Your task to perform on an android device: install app "LinkedIn" Image 0: 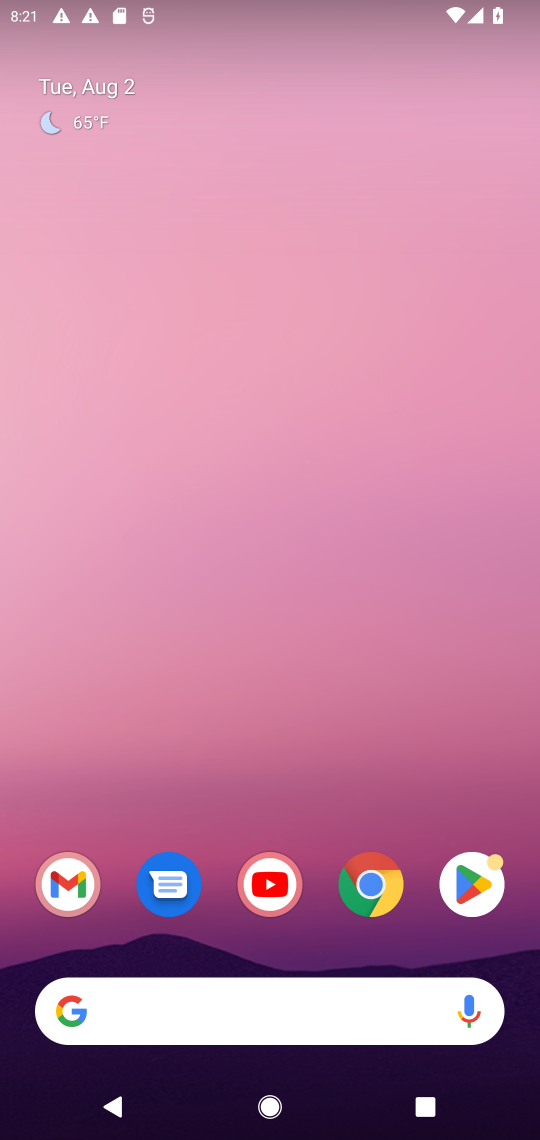
Step 0: press home button
Your task to perform on an android device: install app "LinkedIn" Image 1: 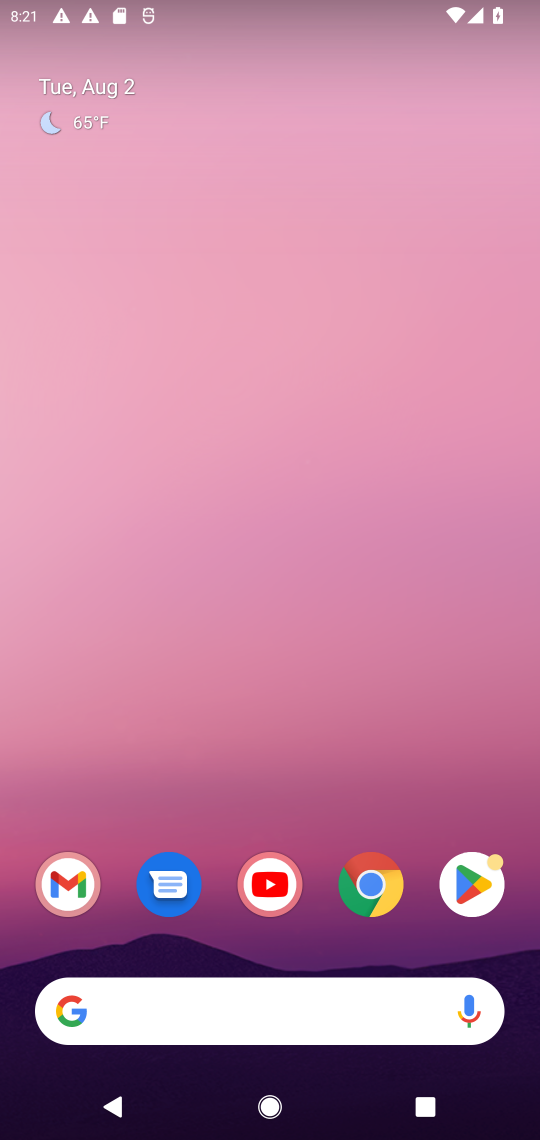
Step 1: click (477, 878)
Your task to perform on an android device: install app "LinkedIn" Image 2: 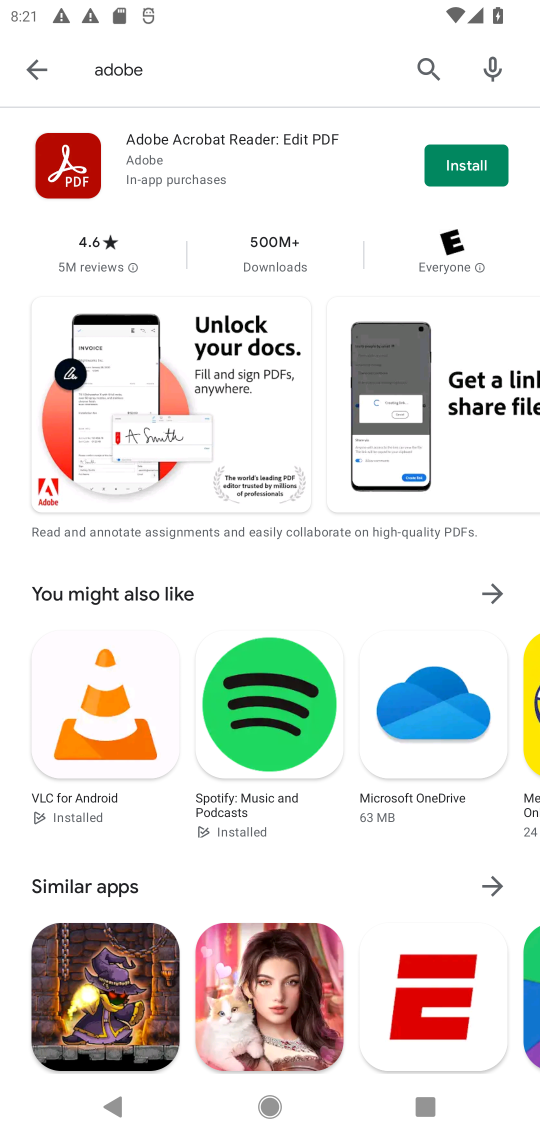
Step 2: click (424, 57)
Your task to perform on an android device: install app "LinkedIn" Image 3: 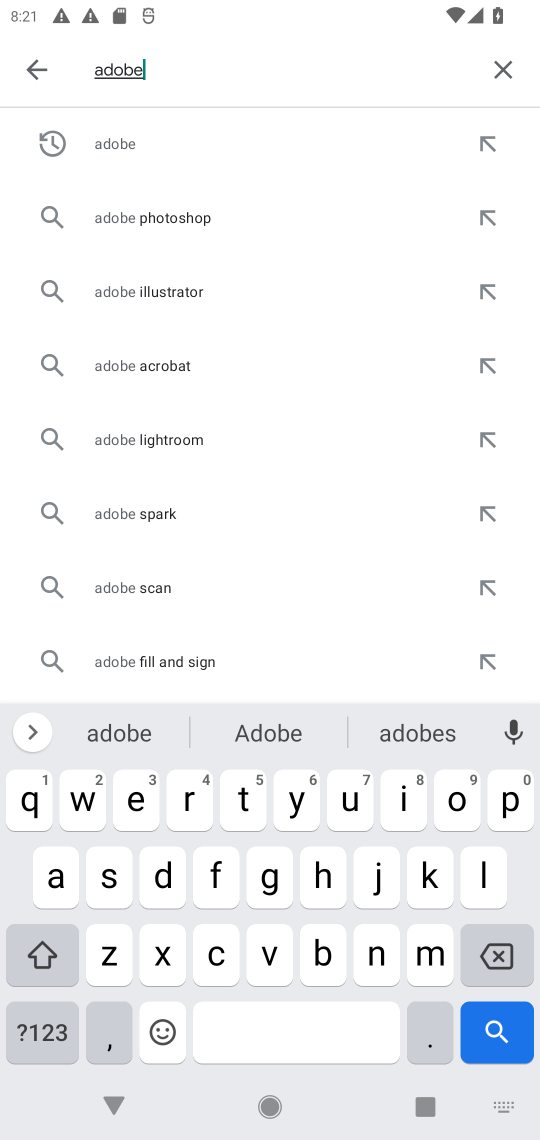
Step 3: click (500, 67)
Your task to perform on an android device: install app "LinkedIn" Image 4: 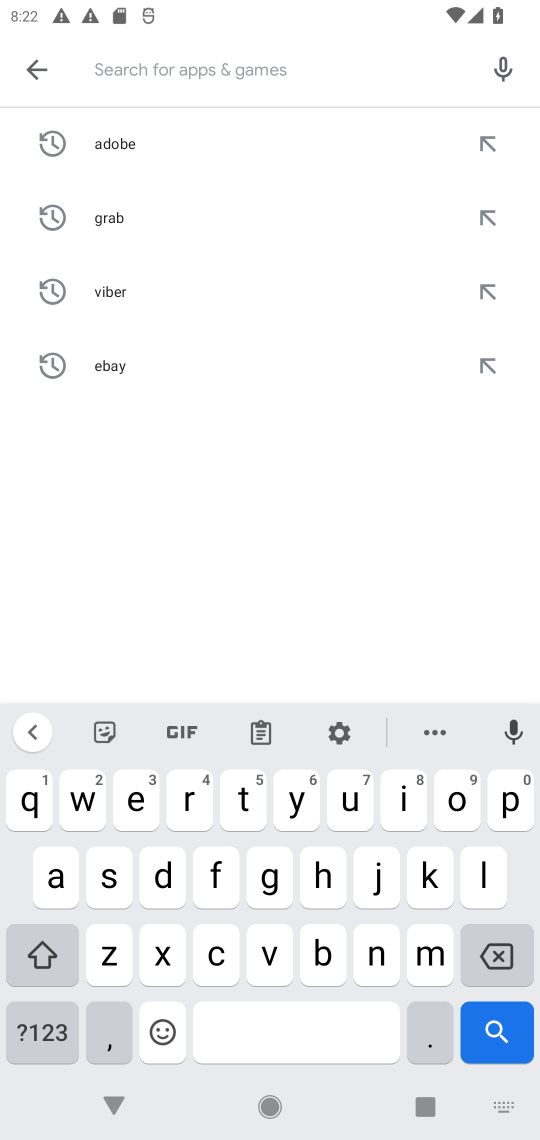
Step 4: click (491, 866)
Your task to perform on an android device: install app "LinkedIn" Image 5: 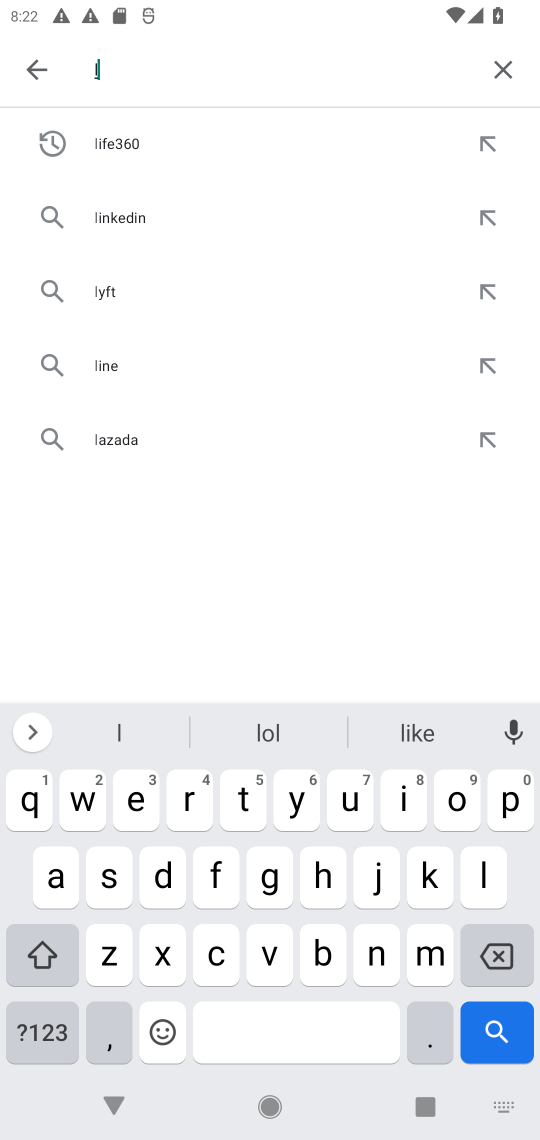
Step 5: click (403, 802)
Your task to perform on an android device: install app "LinkedIn" Image 6: 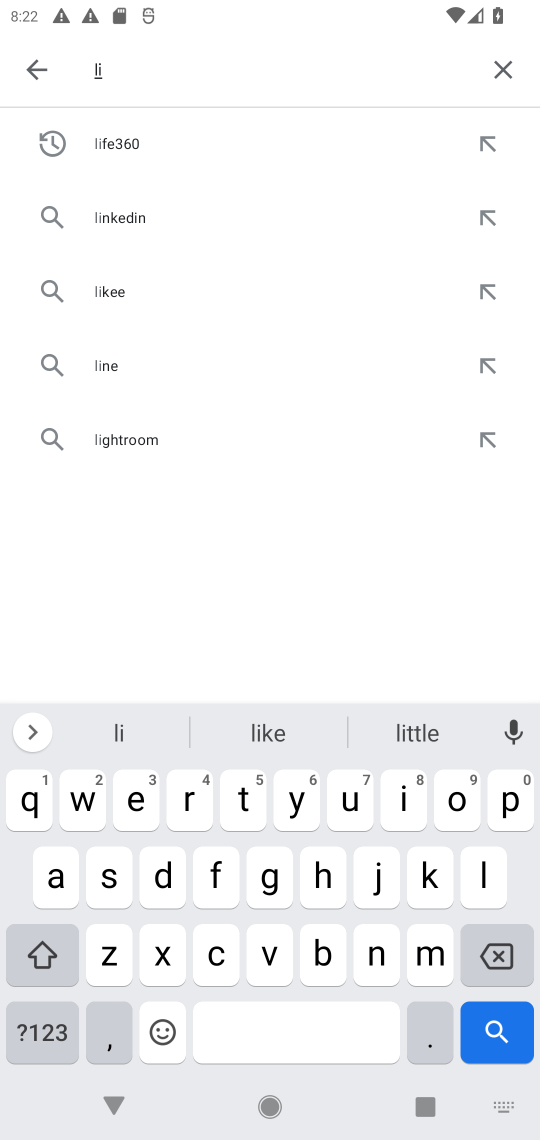
Step 6: click (376, 962)
Your task to perform on an android device: install app "LinkedIn" Image 7: 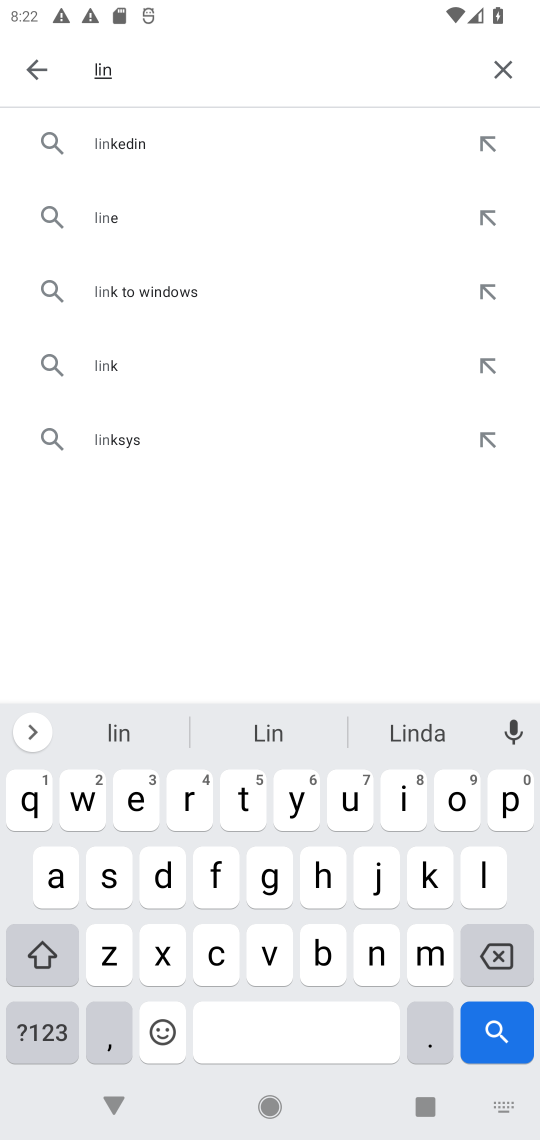
Step 7: click (433, 874)
Your task to perform on an android device: install app "LinkedIn" Image 8: 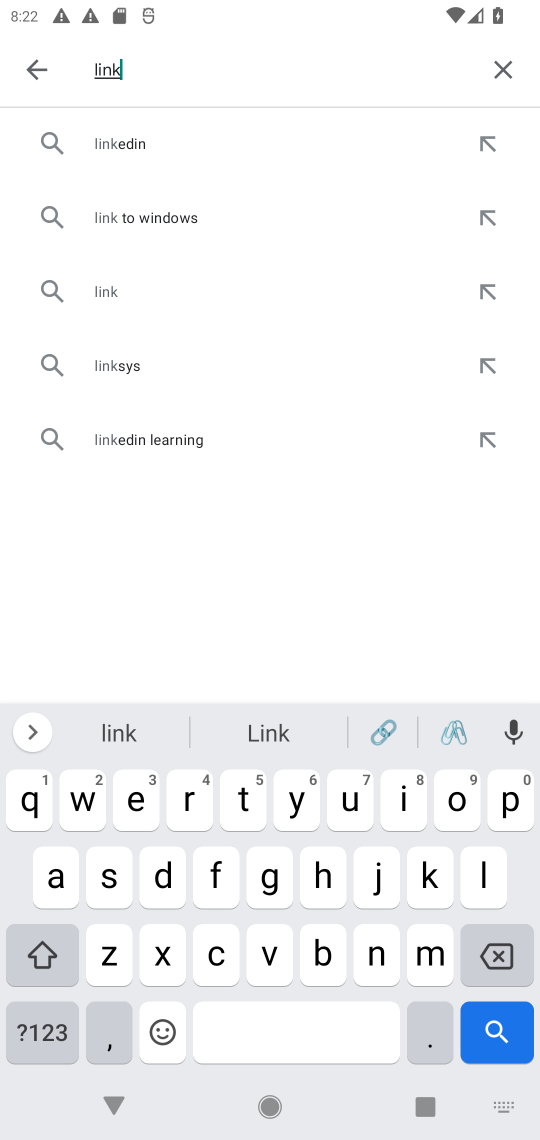
Step 8: click (115, 142)
Your task to perform on an android device: install app "LinkedIn" Image 9: 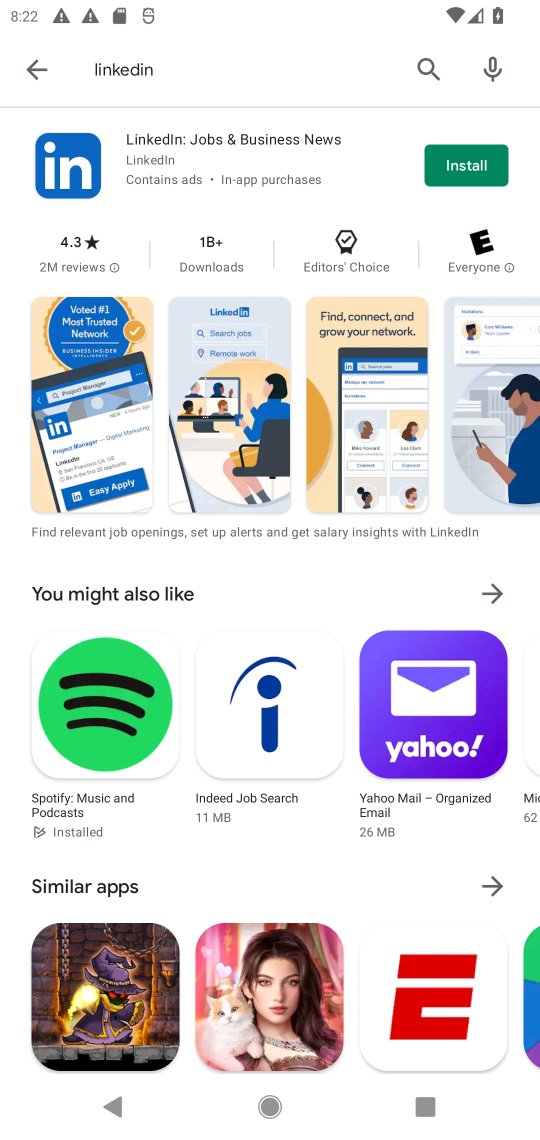
Step 9: click (453, 164)
Your task to perform on an android device: install app "LinkedIn" Image 10: 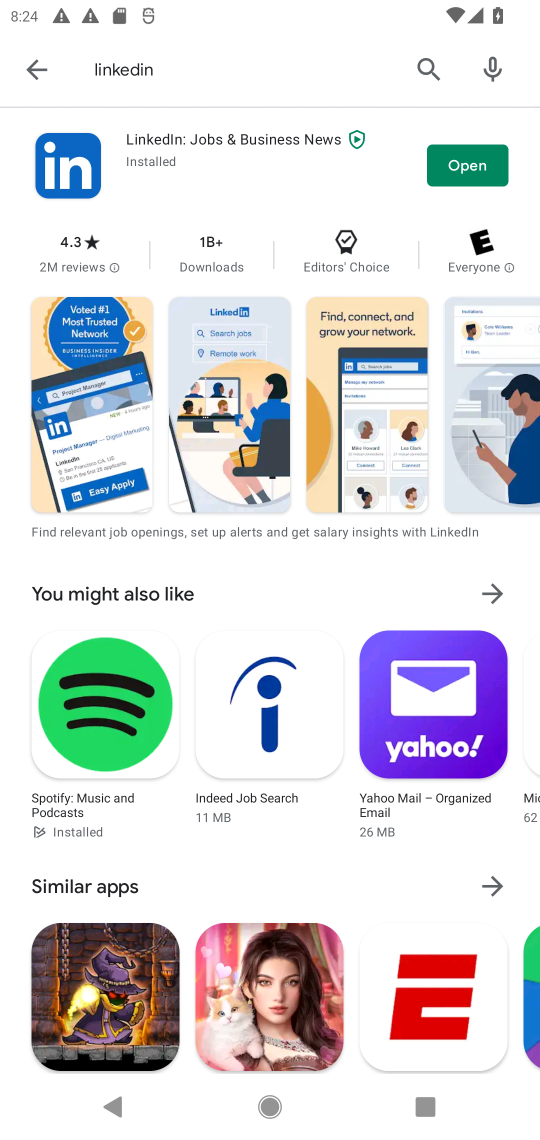
Step 10: task complete